Your task to perform on an android device: turn on improve location accuracy Image 0: 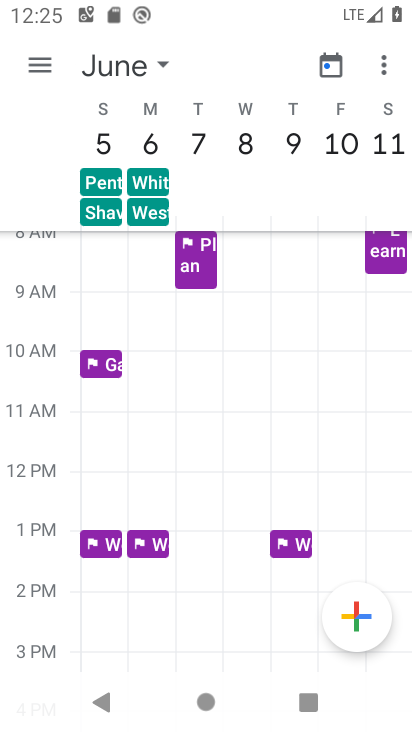
Step 0: press home button
Your task to perform on an android device: turn on improve location accuracy Image 1: 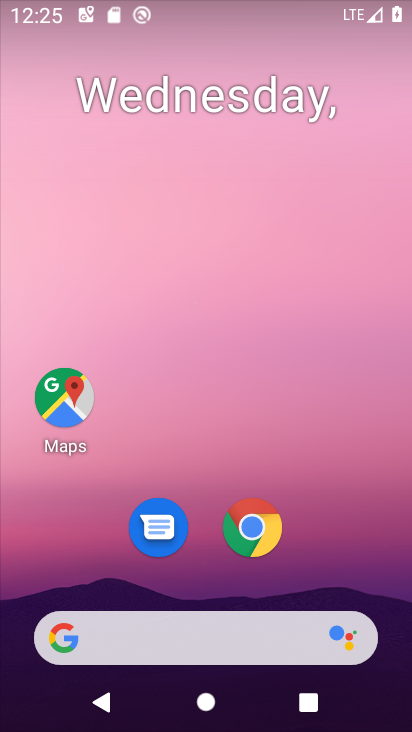
Step 1: drag from (299, 660) to (293, 3)
Your task to perform on an android device: turn on improve location accuracy Image 2: 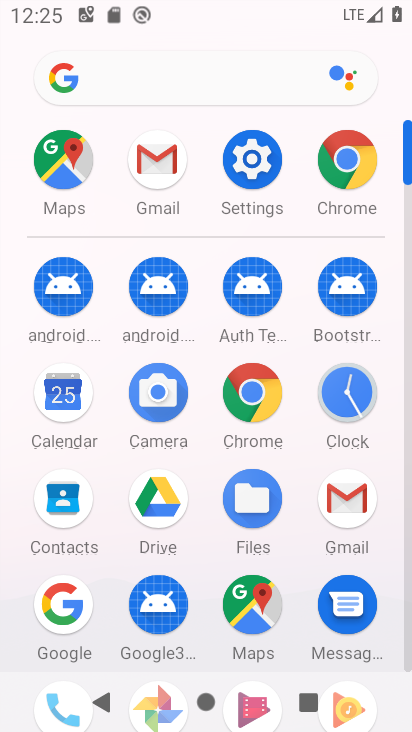
Step 2: click (269, 158)
Your task to perform on an android device: turn on improve location accuracy Image 3: 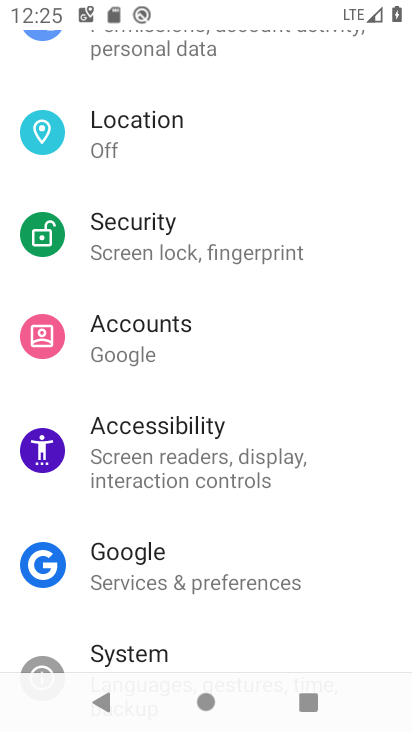
Step 3: click (153, 112)
Your task to perform on an android device: turn on improve location accuracy Image 4: 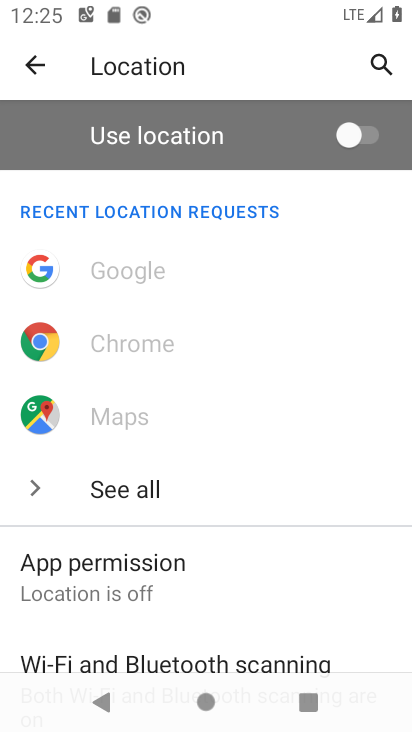
Step 4: drag from (257, 600) to (307, 136)
Your task to perform on an android device: turn on improve location accuracy Image 5: 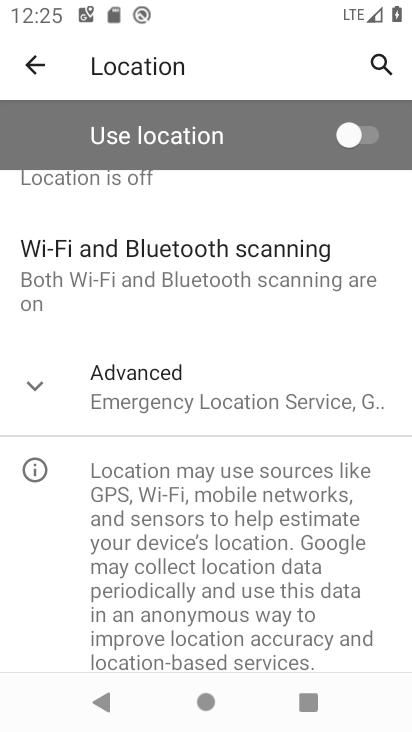
Step 5: click (212, 399)
Your task to perform on an android device: turn on improve location accuracy Image 6: 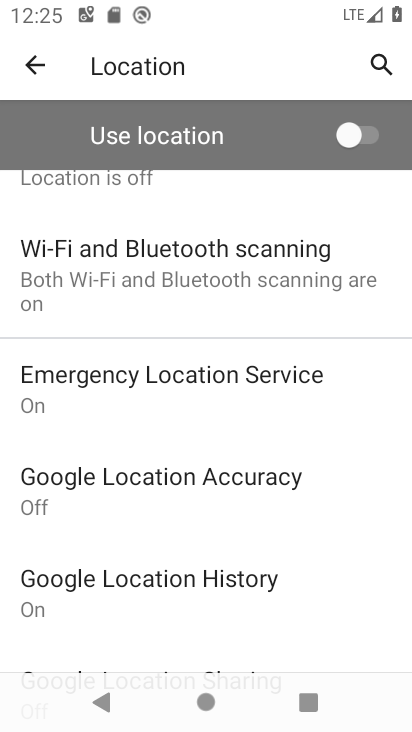
Step 6: click (225, 489)
Your task to perform on an android device: turn on improve location accuracy Image 7: 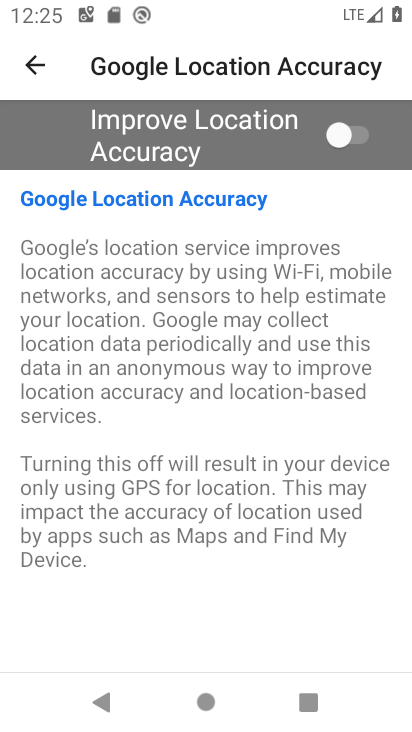
Step 7: click (362, 138)
Your task to perform on an android device: turn on improve location accuracy Image 8: 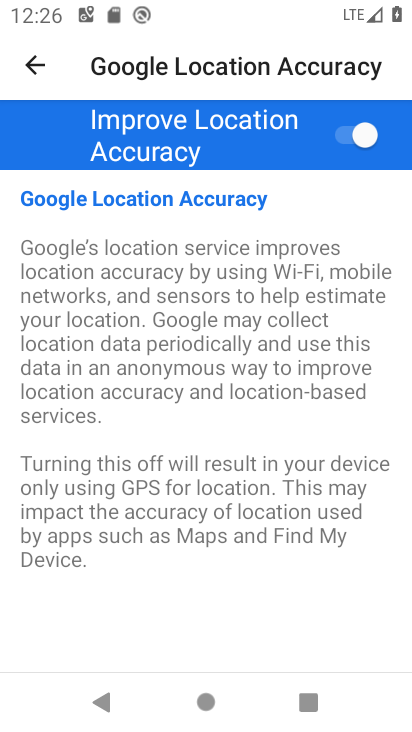
Step 8: task complete